Your task to perform on an android device: Turn off the flashlight Image 0: 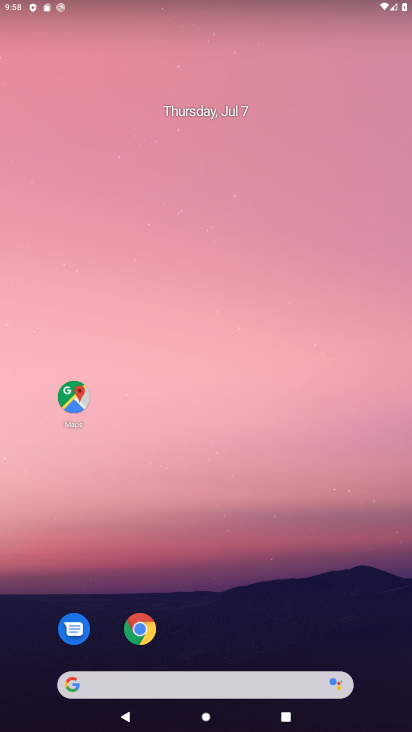
Step 0: press home button
Your task to perform on an android device: Turn off the flashlight Image 1: 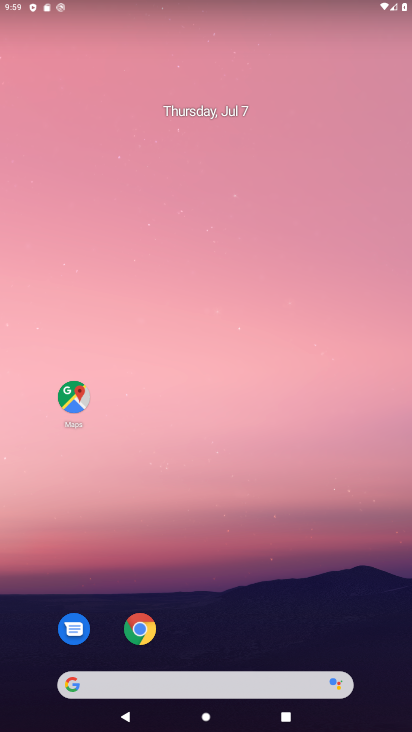
Step 1: task complete